Your task to perform on an android device: Open Google Maps and go to "Timeline" Image 0: 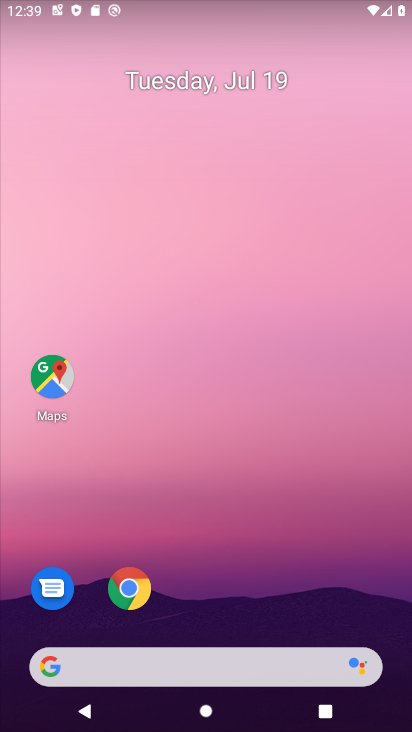
Step 0: drag from (285, 578) to (238, 2)
Your task to perform on an android device: Open Google Maps and go to "Timeline" Image 1: 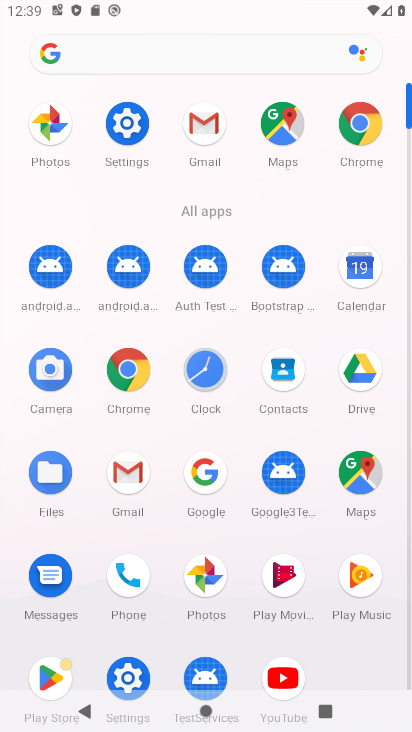
Step 1: click (283, 125)
Your task to perform on an android device: Open Google Maps and go to "Timeline" Image 2: 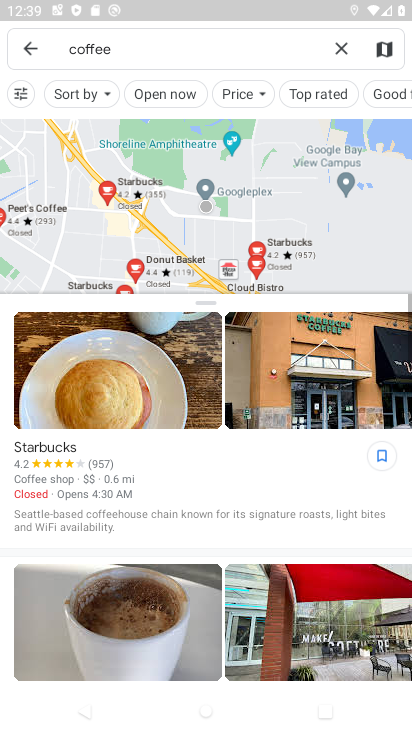
Step 2: click (36, 56)
Your task to perform on an android device: Open Google Maps and go to "Timeline" Image 3: 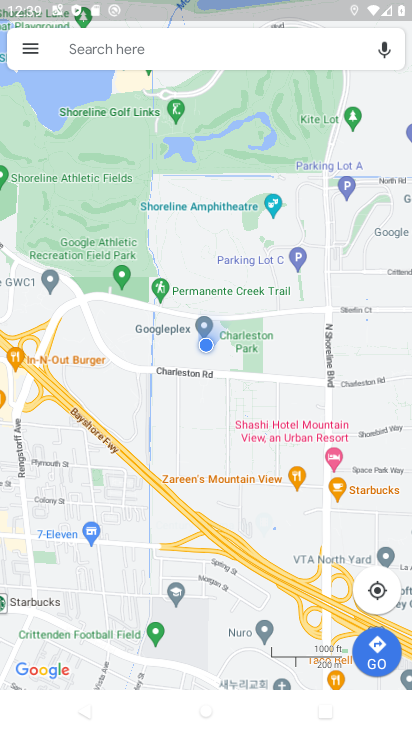
Step 3: click (35, 48)
Your task to perform on an android device: Open Google Maps and go to "Timeline" Image 4: 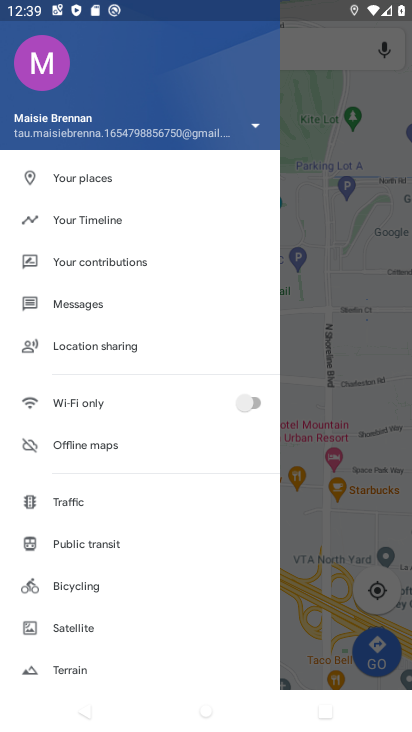
Step 4: click (80, 222)
Your task to perform on an android device: Open Google Maps and go to "Timeline" Image 5: 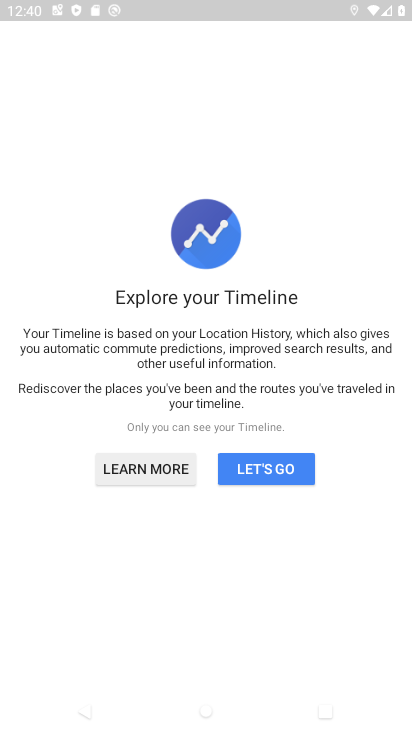
Step 5: task complete